Your task to perform on an android device: turn notification dots off Image 0: 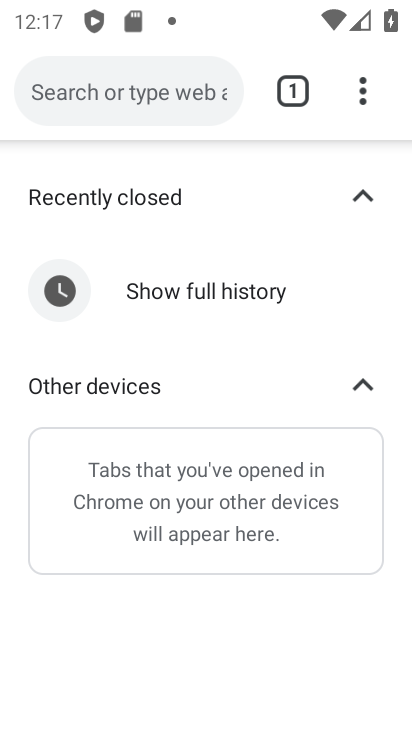
Step 0: press home button
Your task to perform on an android device: turn notification dots off Image 1: 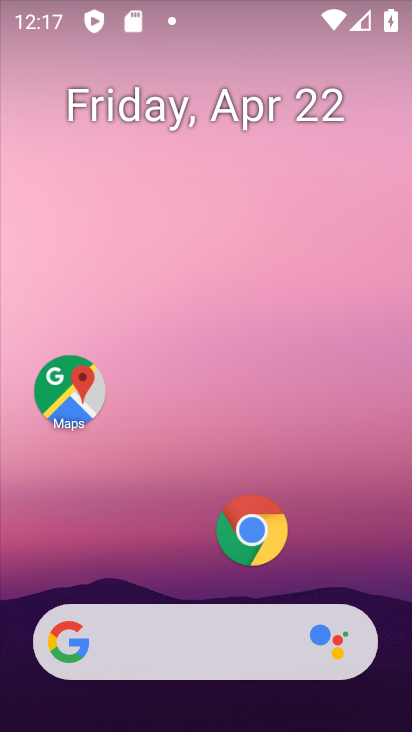
Step 1: drag from (234, 699) to (228, 163)
Your task to perform on an android device: turn notification dots off Image 2: 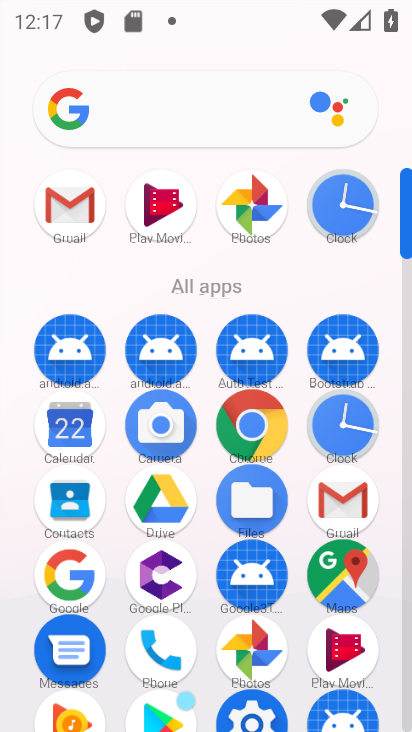
Step 2: click (254, 712)
Your task to perform on an android device: turn notification dots off Image 3: 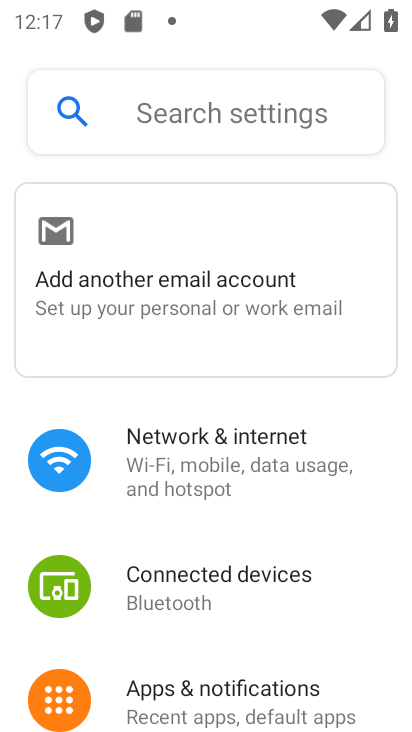
Step 3: click (234, 696)
Your task to perform on an android device: turn notification dots off Image 4: 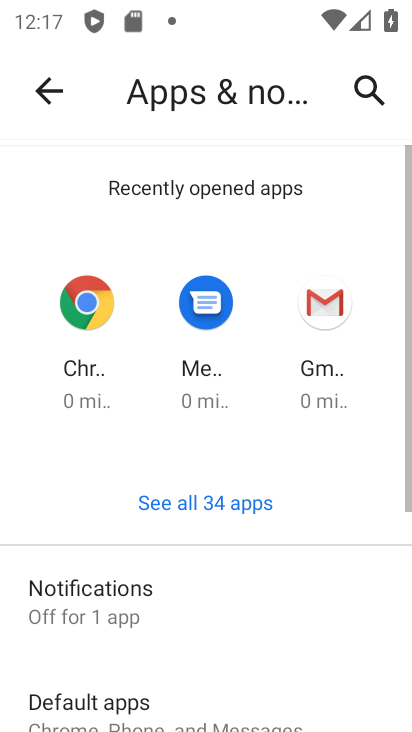
Step 4: drag from (219, 664) to (231, 395)
Your task to perform on an android device: turn notification dots off Image 5: 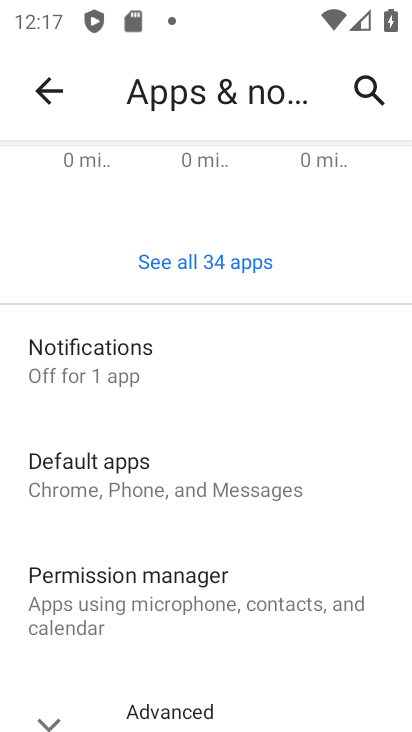
Step 5: click (67, 365)
Your task to perform on an android device: turn notification dots off Image 6: 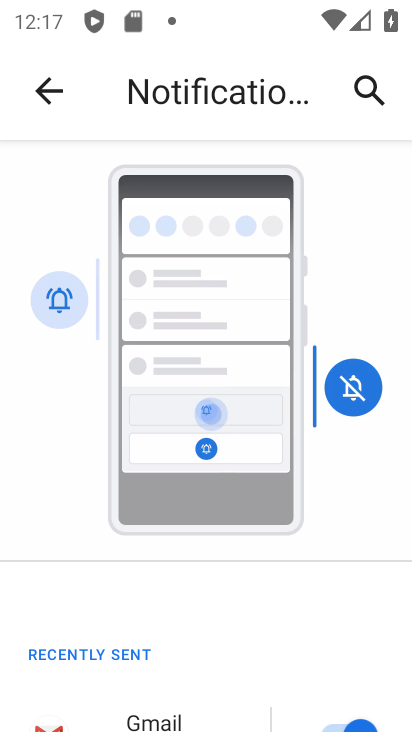
Step 6: drag from (244, 690) to (253, 372)
Your task to perform on an android device: turn notification dots off Image 7: 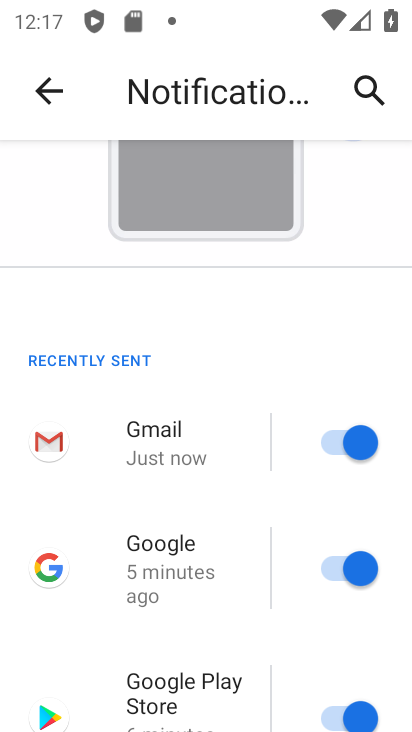
Step 7: drag from (243, 707) to (250, 338)
Your task to perform on an android device: turn notification dots off Image 8: 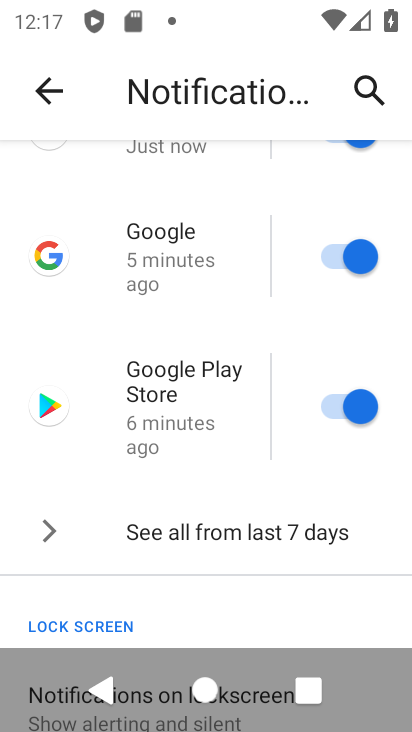
Step 8: drag from (233, 631) to (240, 175)
Your task to perform on an android device: turn notification dots off Image 9: 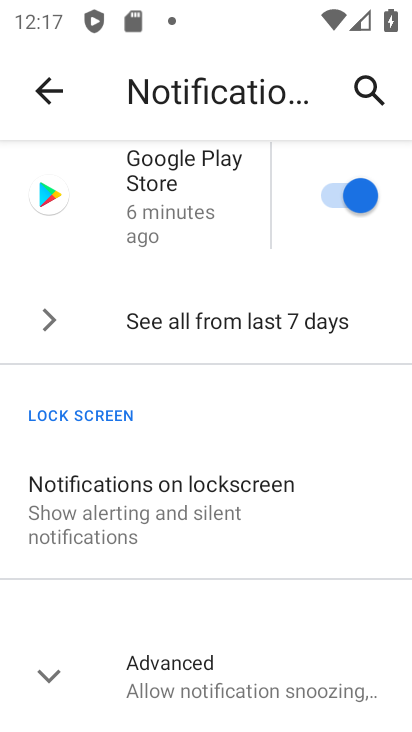
Step 9: click (164, 687)
Your task to perform on an android device: turn notification dots off Image 10: 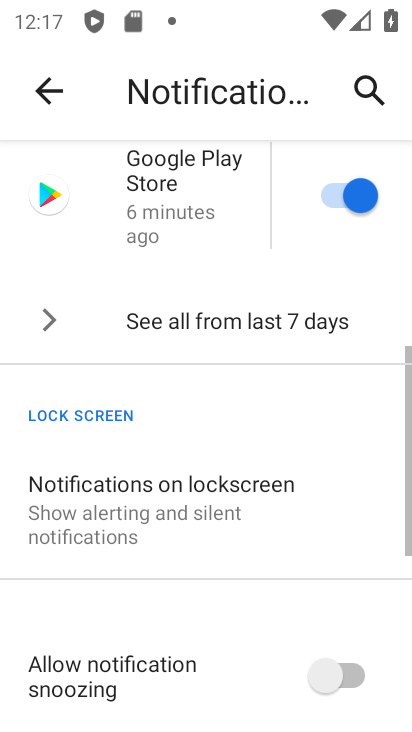
Step 10: drag from (261, 680) to (256, 276)
Your task to perform on an android device: turn notification dots off Image 11: 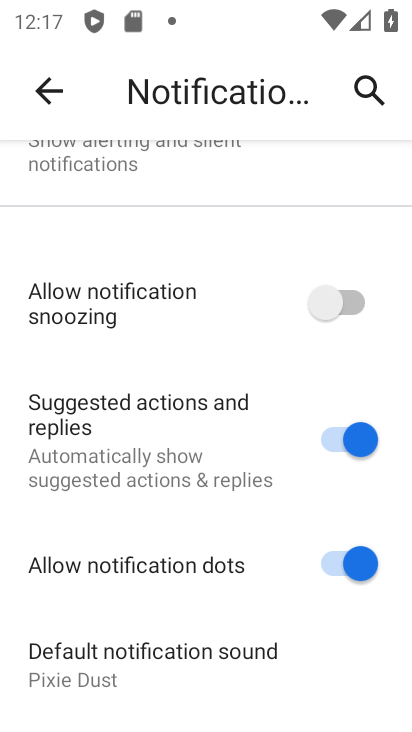
Step 11: click (332, 562)
Your task to perform on an android device: turn notification dots off Image 12: 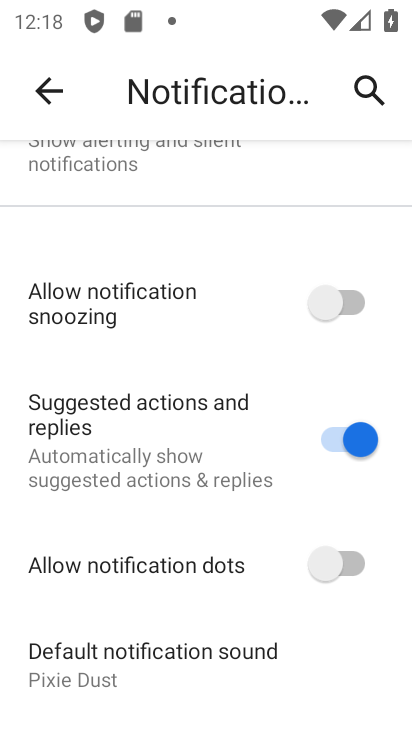
Step 12: task complete